Your task to perform on an android device: Go to internet settings Image 0: 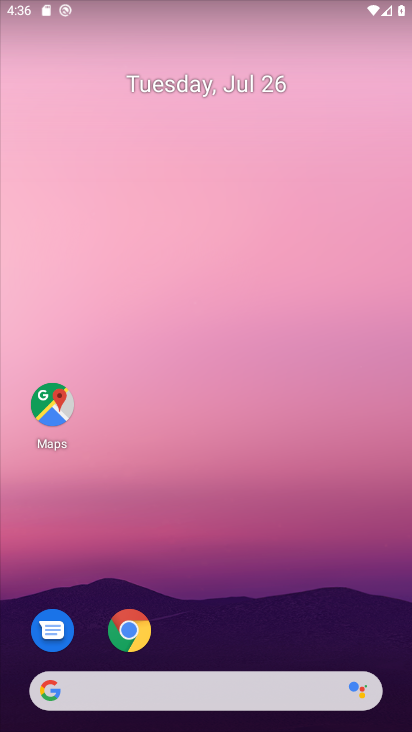
Step 0: drag from (257, 644) to (190, 211)
Your task to perform on an android device: Go to internet settings Image 1: 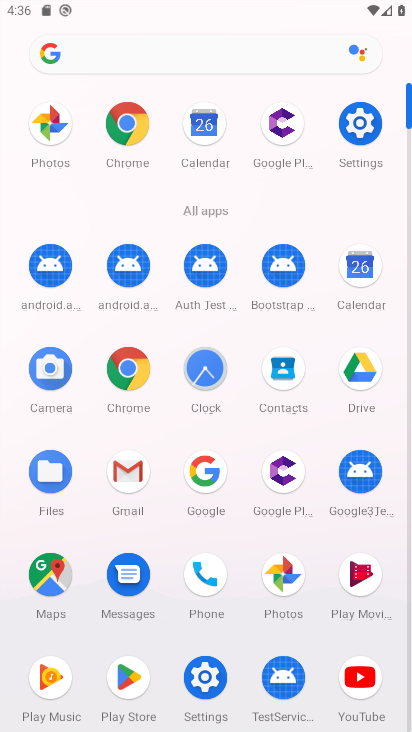
Step 1: click (357, 125)
Your task to perform on an android device: Go to internet settings Image 2: 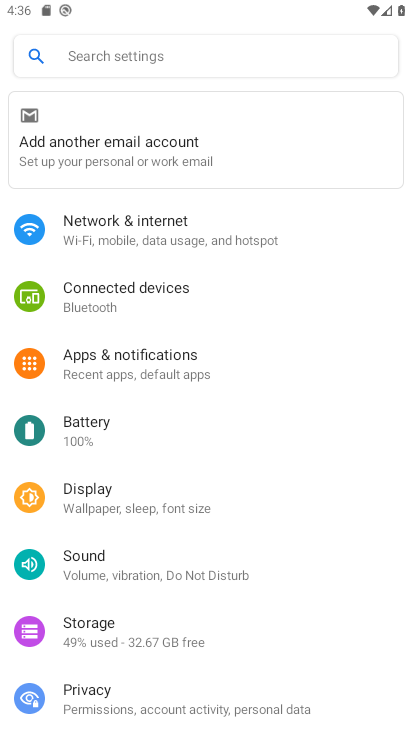
Step 2: click (176, 228)
Your task to perform on an android device: Go to internet settings Image 3: 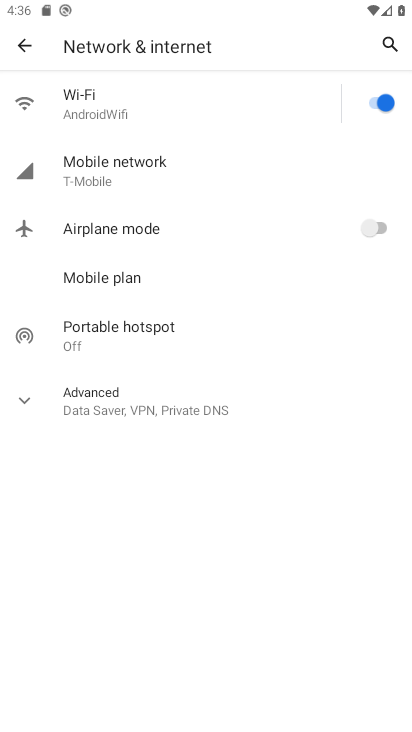
Step 3: task complete